Your task to perform on an android device: toggle sleep mode Image 0: 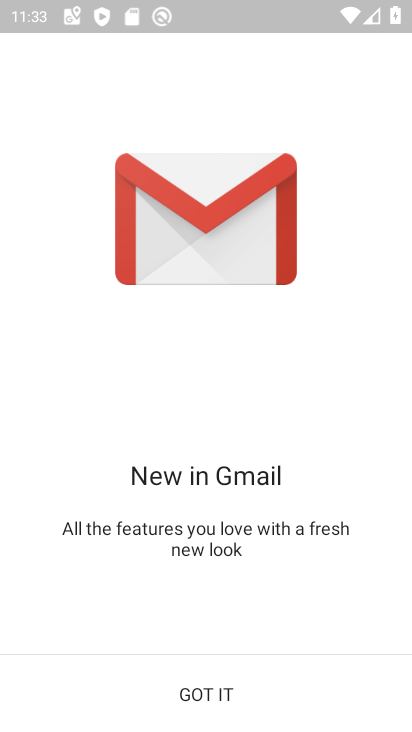
Step 0: press home button
Your task to perform on an android device: toggle sleep mode Image 1: 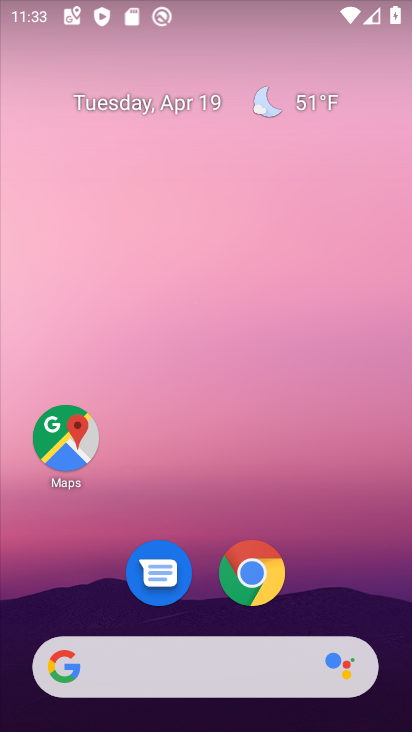
Step 1: drag from (324, 612) to (331, 219)
Your task to perform on an android device: toggle sleep mode Image 2: 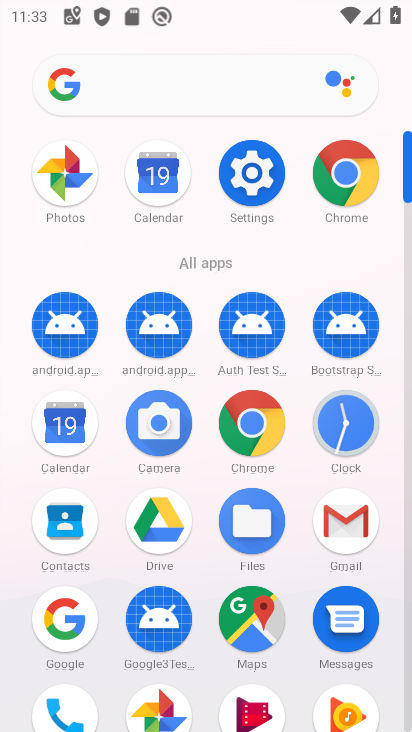
Step 2: click (261, 184)
Your task to perform on an android device: toggle sleep mode Image 3: 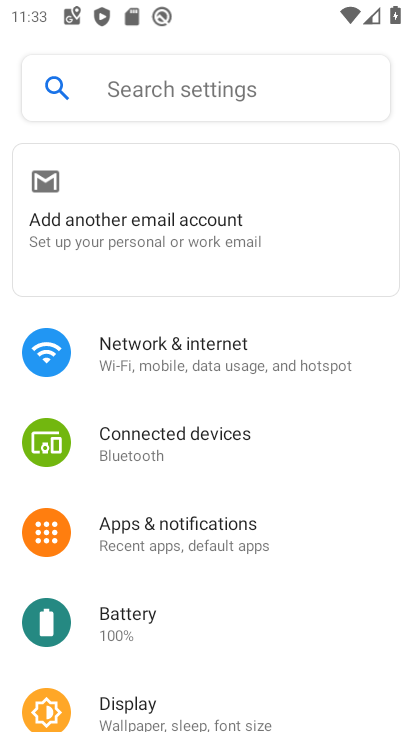
Step 3: click (187, 721)
Your task to perform on an android device: toggle sleep mode Image 4: 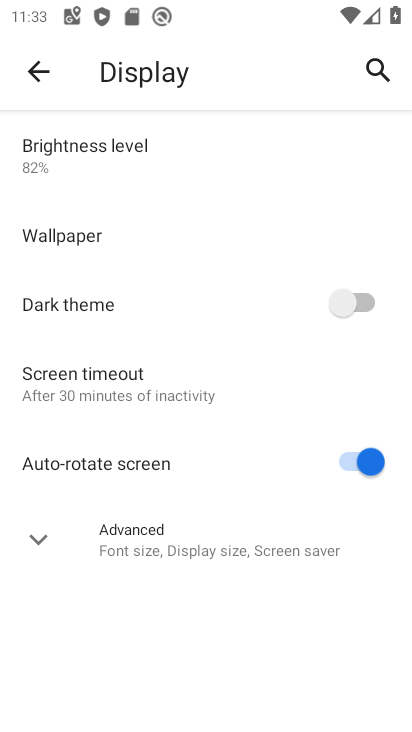
Step 4: click (38, 544)
Your task to perform on an android device: toggle sleep mode Image 5: 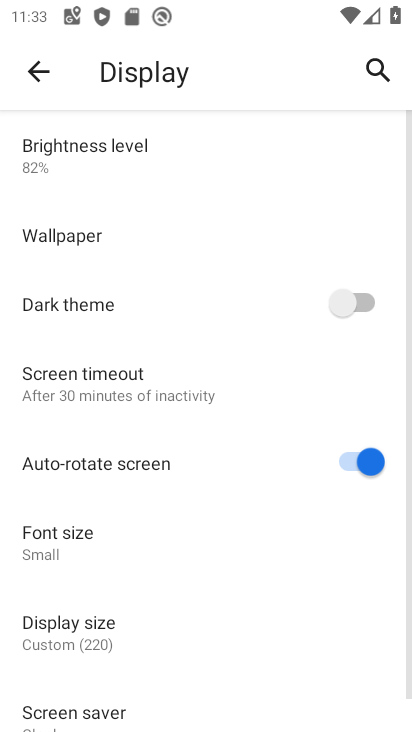
Step 5: task complete